Your task to perform on an android device: turn on airplane mode Image 0: 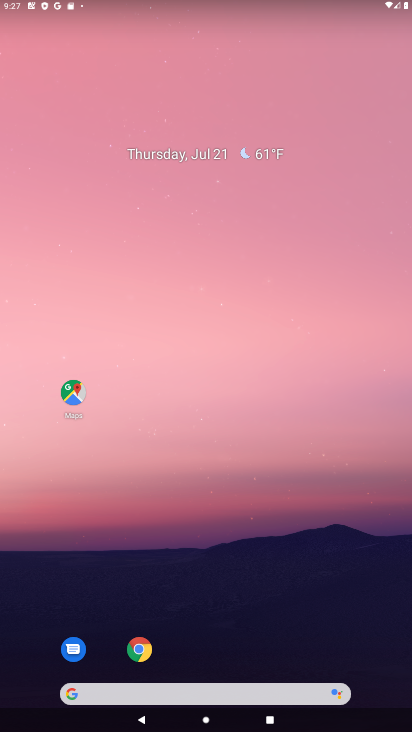
Step 0: drag from (179, 686) to (284, 176)
Your task to perform on an android device: turn on airplane mode Image 1: 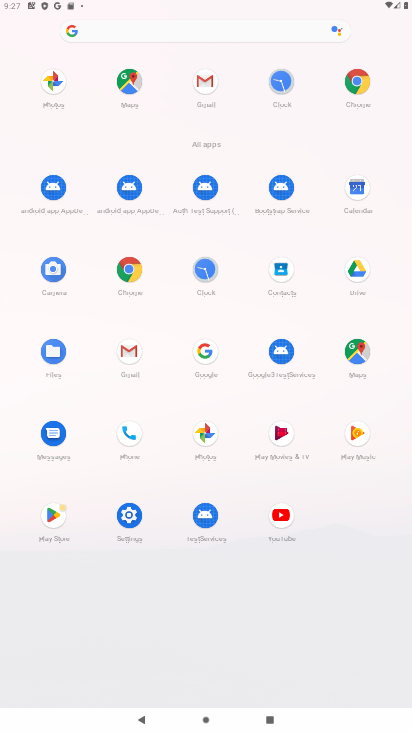
Step 1: click (128, 515)
Your task to perform on an android device: turn on airplane mode Image 2: 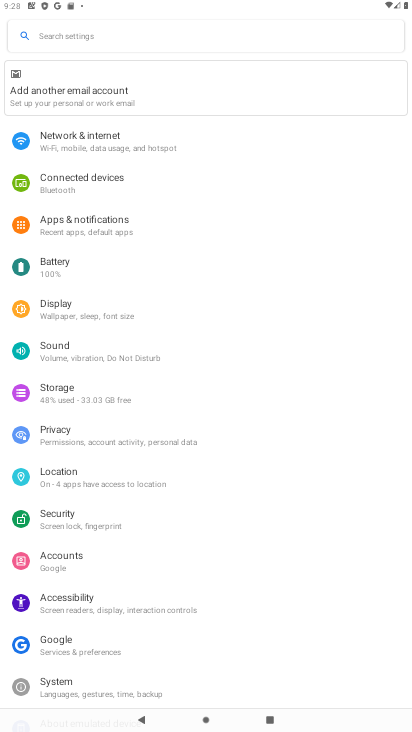
Step 2: click (103, 140)
Your task to perform on an android device: turn on airplane mode Image 3: 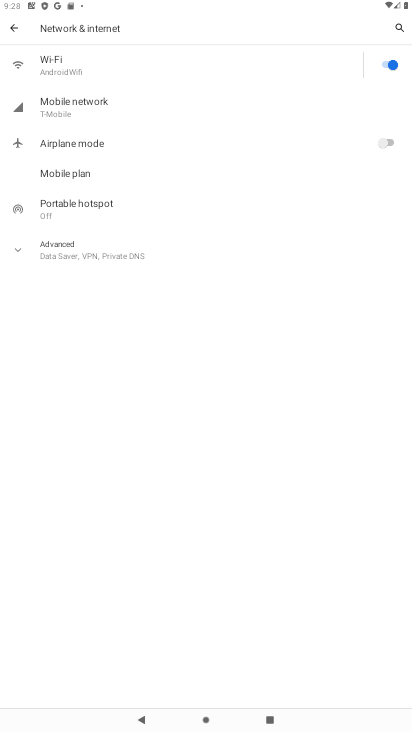
Step 3: click (386, 140)
Your task to perform on an android device: turn on airplane mode Image 4: 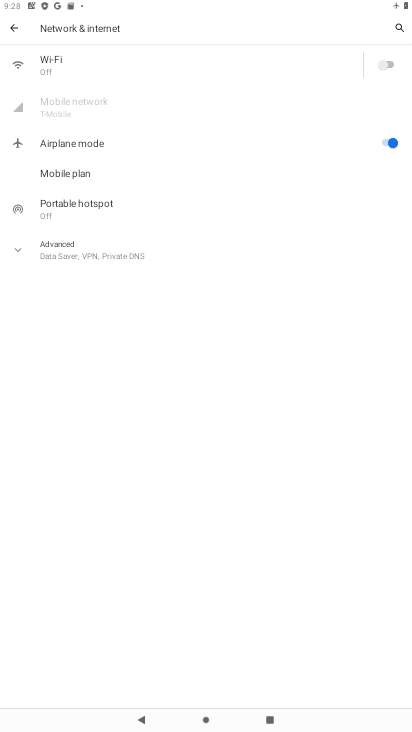
Step 4: task complete